Your task to perform on an android device: Search for macbook pro on costco.com, select the first entry, and add it to the cart. Image 0: 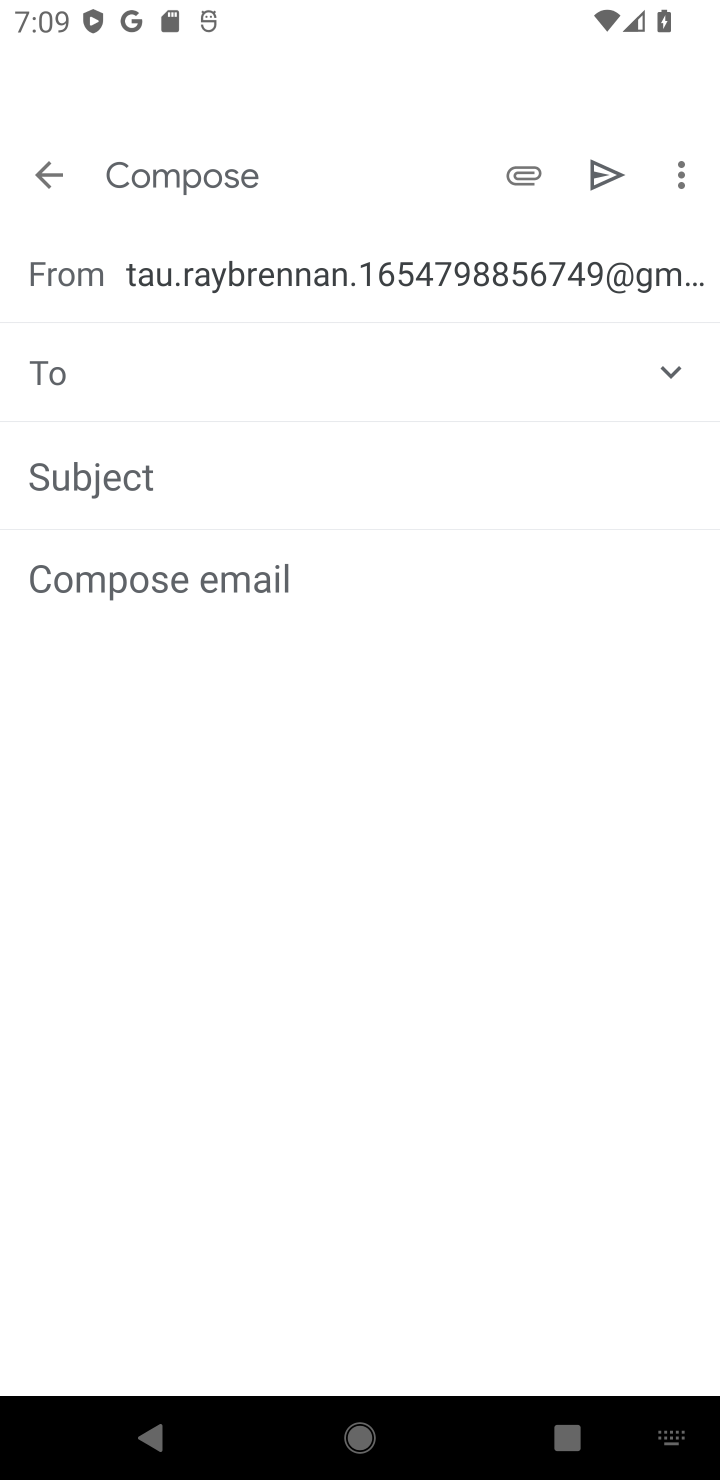
Step 0: press home button
Your task to perform on an android device: Search for macbook pro on costco.com, select the first entry, and add it to the cart. Image 1: 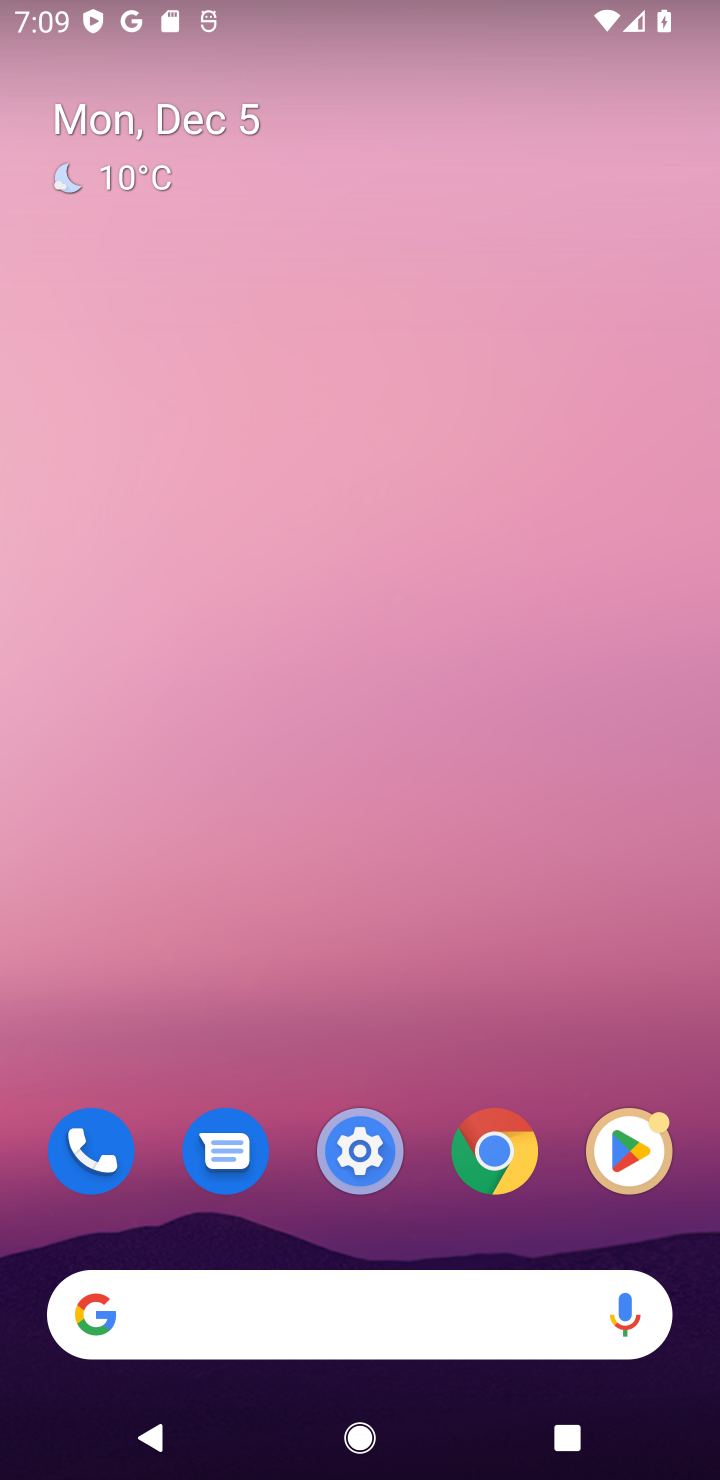
Step 1: click (382, 1333)
Your task to perform on an android device: Search for macbook pro on costco.com, select the first entry, and add it to the cart. Image 2: 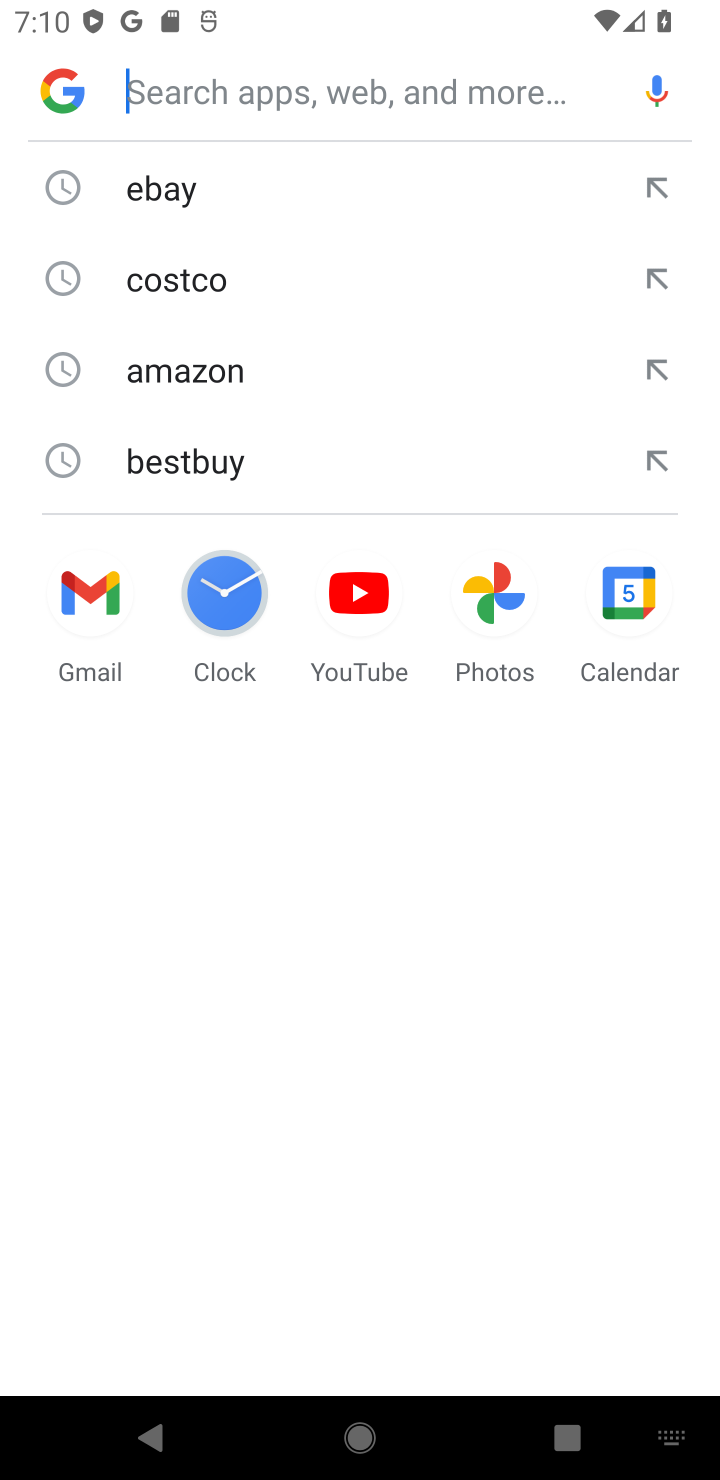
Step 2: click (375, 294)
Your task to perform on an android device: Search for macbook pro on costco.com, select the first entry, and add it to the cart. Image 3: 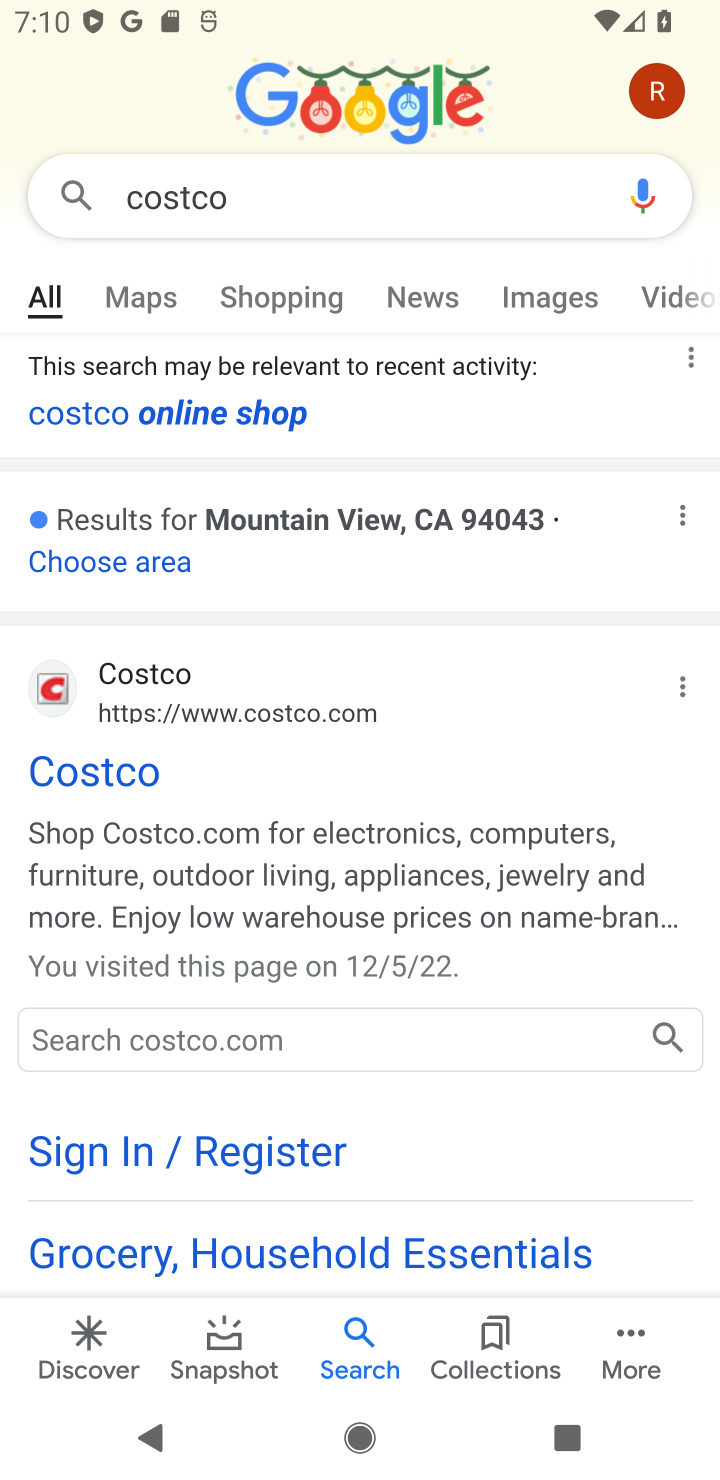
Step 3: click (106, 748)
Your task to perform on an android device: Search for macbook pro on costco.com, select the first entry, and add it to the cart. Image 4: 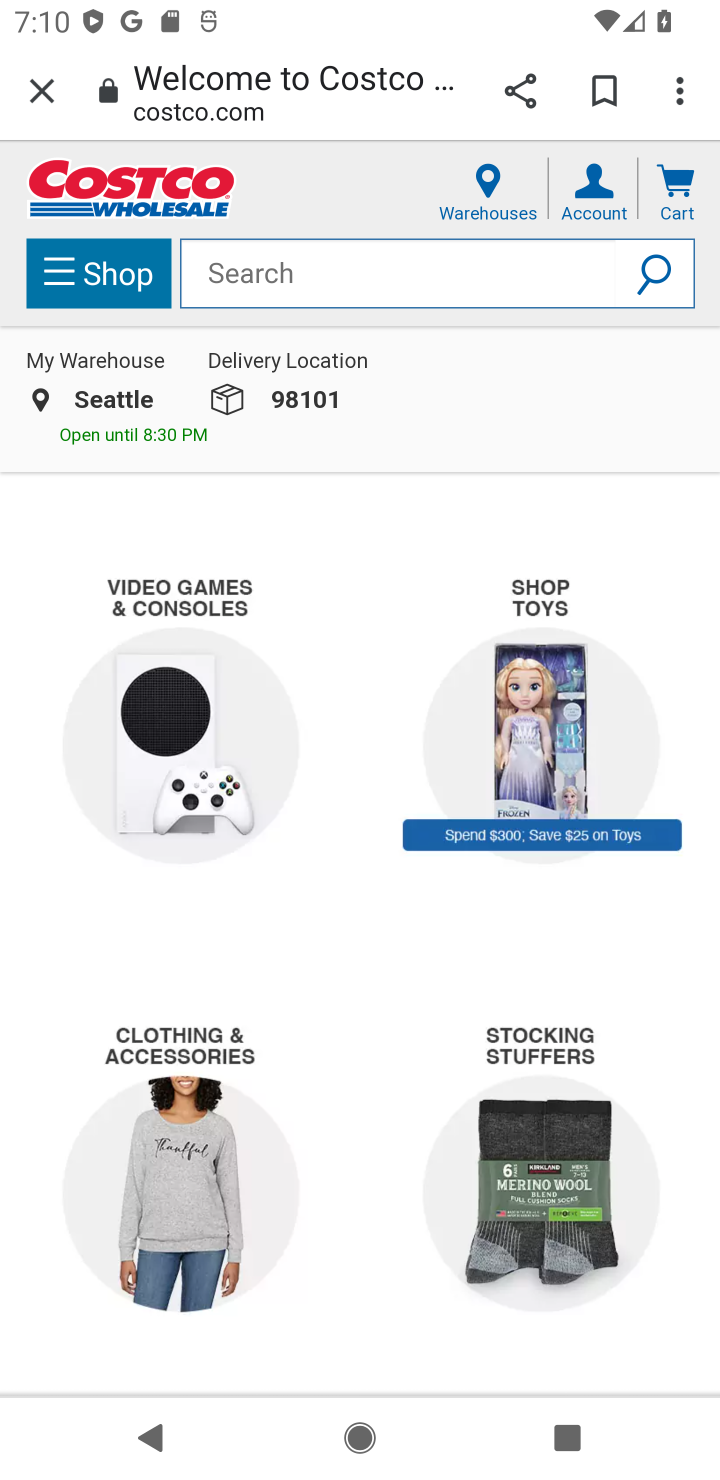
Step 4: click (273, 289)
Your task to perform on an android device: Search for macbook pro on costco.com, select the first entry, and add it to the cart. Image 5: 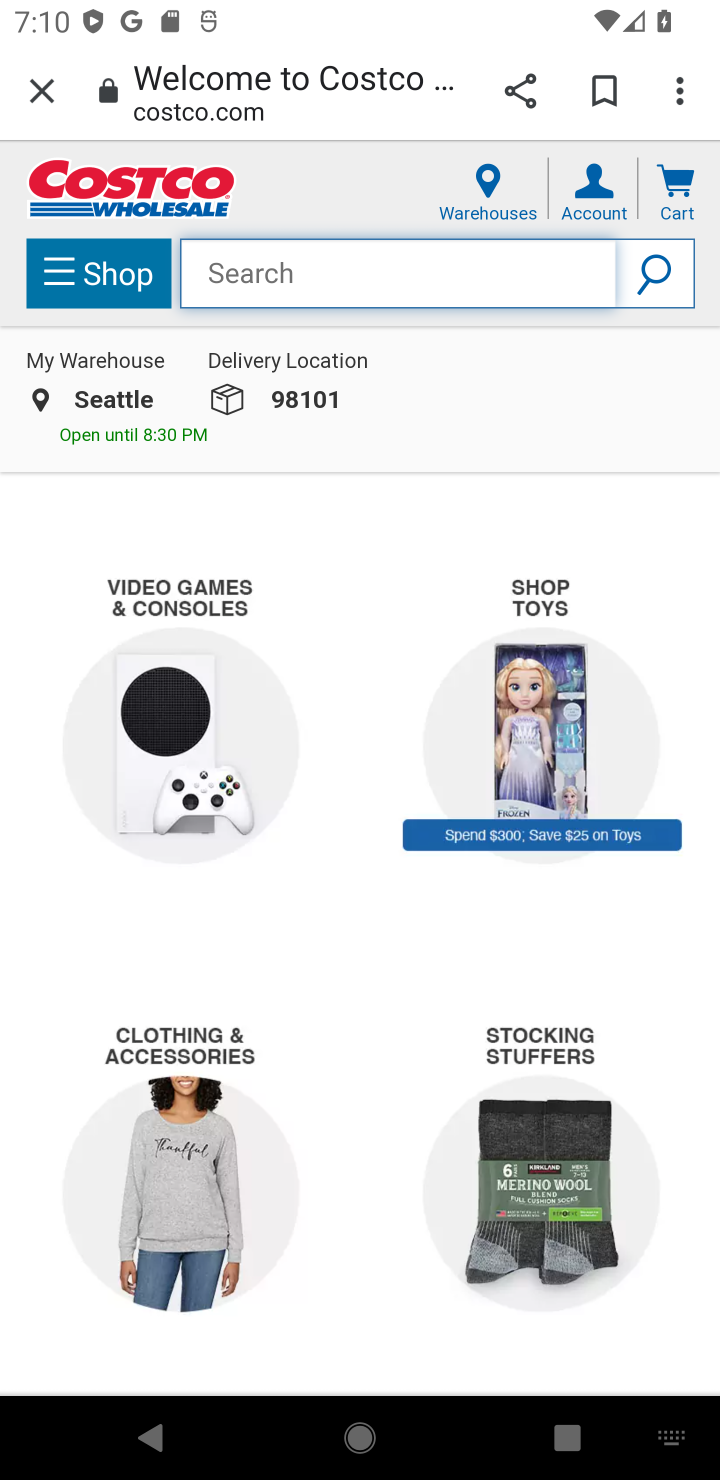
Step 5: type "macbook pro"
Your task to perform on an android device: Search for macbook pro on costco.com, select the first entry, and add it to the cart. Image 6: 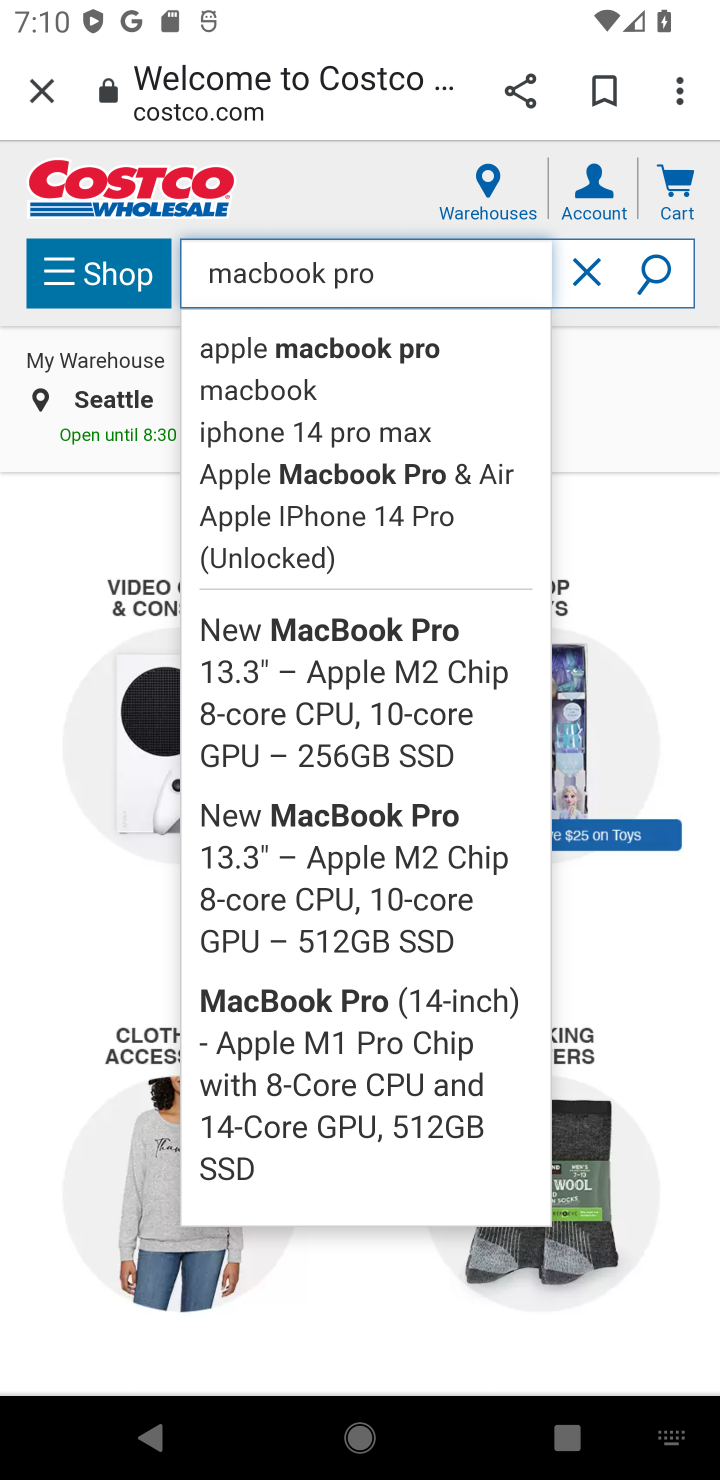
Step 6: click (410, 330)
Your task to perform on an android device: Search for macbook pro on costco.com, select the first entry, and add it to the cart. Image 7: 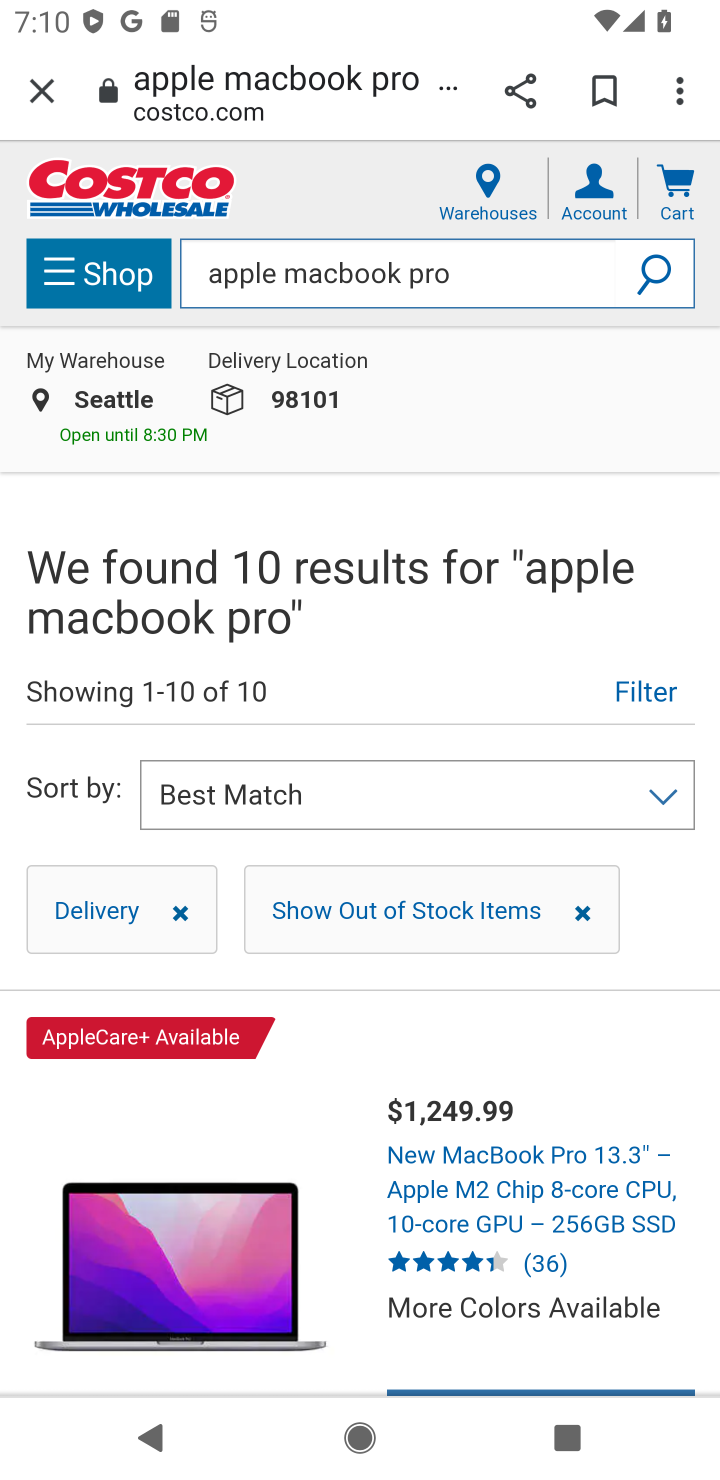
Step 7: click (417, 1167)
Your task to perform on an android device: Search for macbook pro on costco.com, select the first entry, and add it to the cart. Image 8: 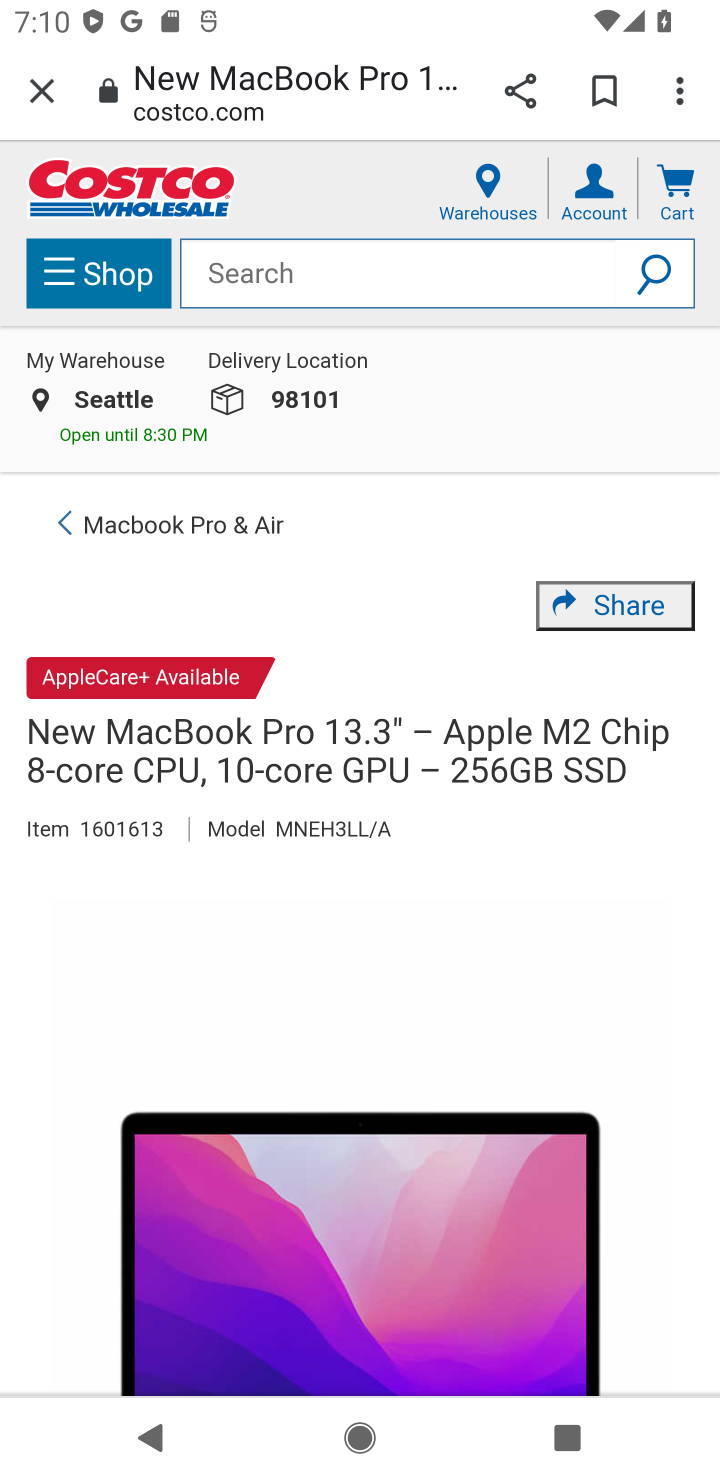
Step 8: drag from (317, 921) to (315, 605)
Your task to perform on an android device: Search for macbook pro on costco.com, select the first entry, and add it to the cart. Image 9: 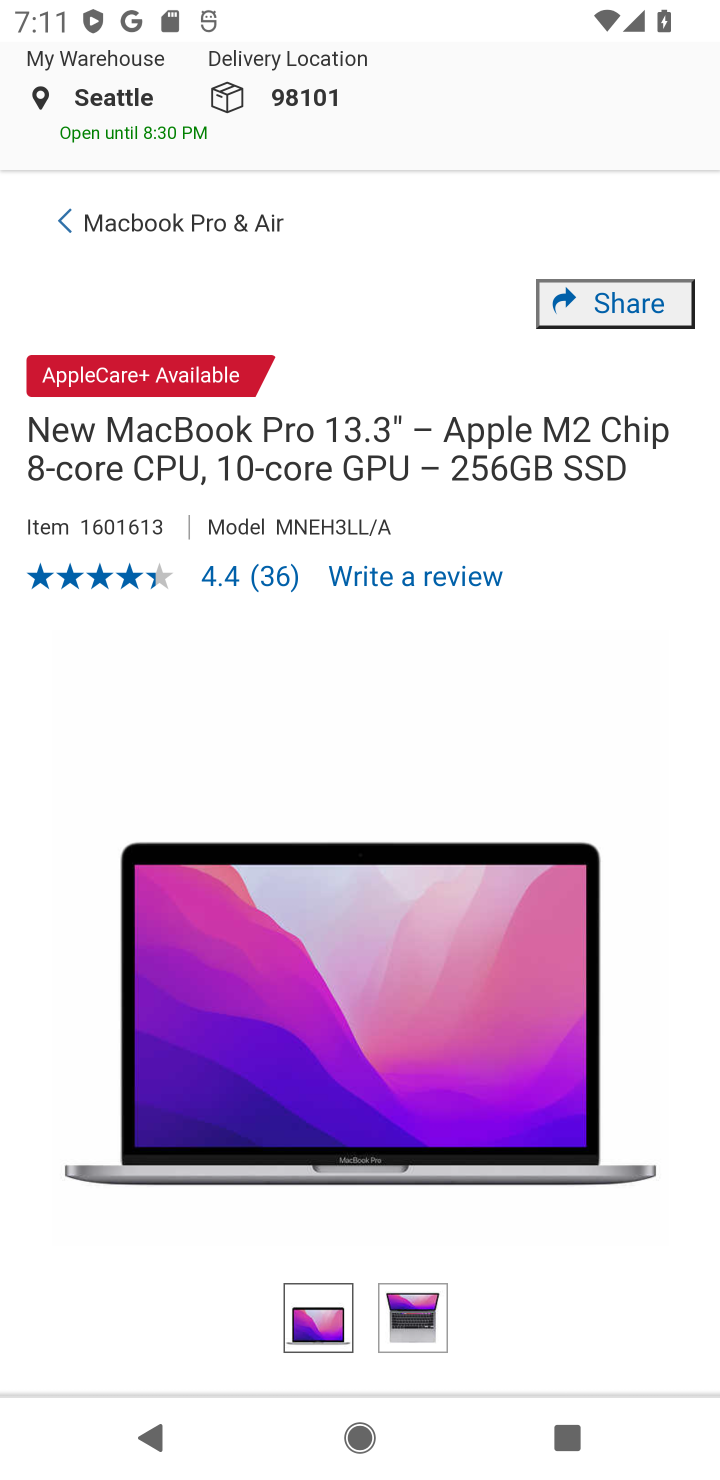
Step 9: drag from (605, 1265) to (390, 356)
Your task to perform on an android device: Search for macbook pro on costco.com, select the first entry, and add it to the cart. Image 10: 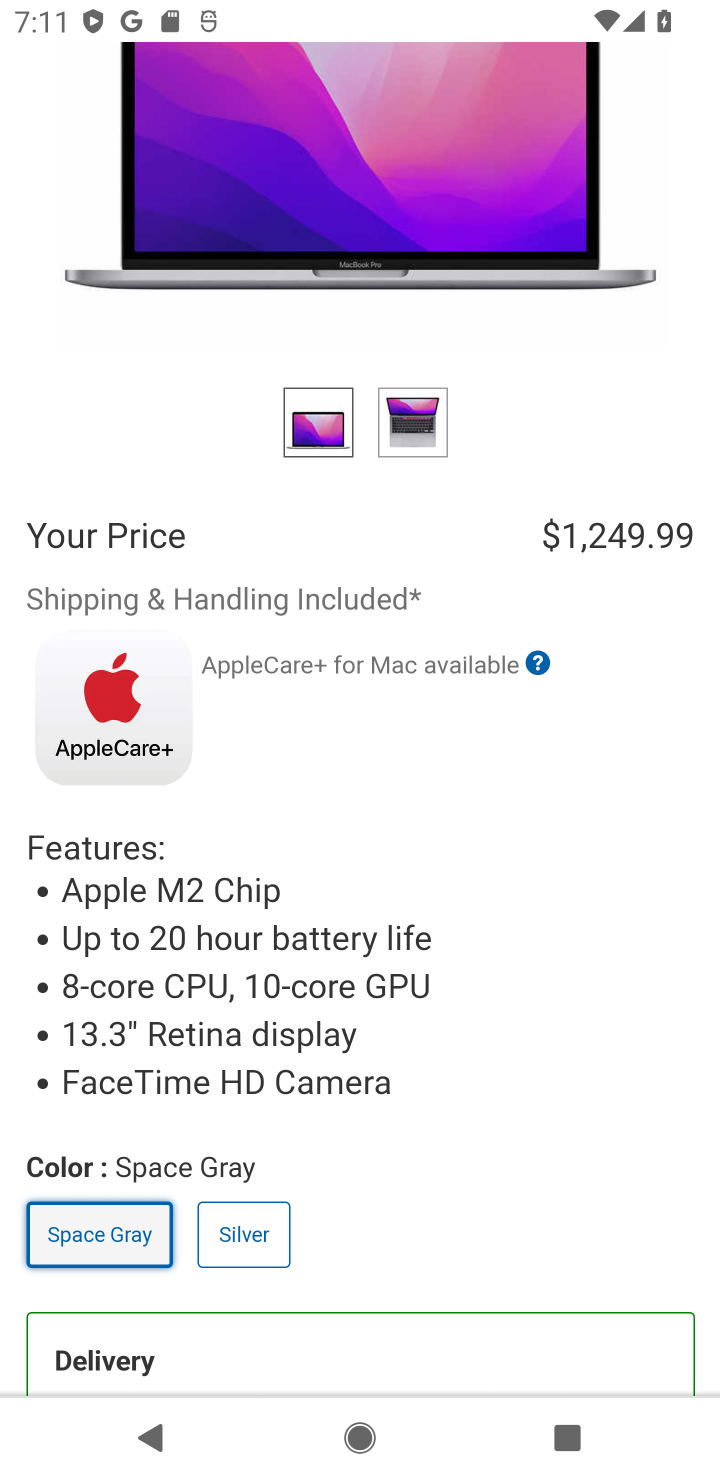
Step 10: drag from (566, 1255) to (483, 236)
Your task to perform on an android device: Search for macbook pro on costco.com, select the first entry, and add it to the cart. Image 11: 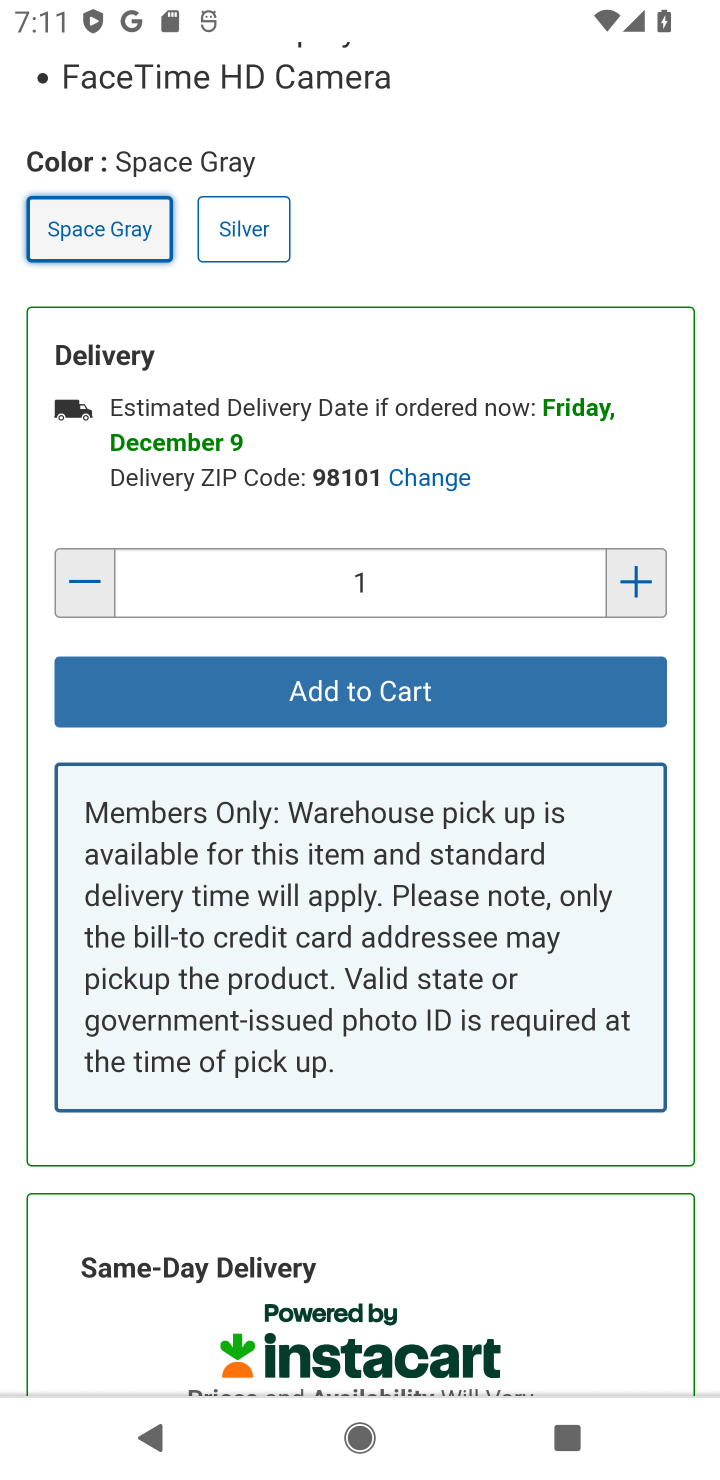
Step 11: click (452, 666)
Your task to perform on an android device: Search for macbook pro on costco.com, select the first entry, and add it to the cart. Image 12: 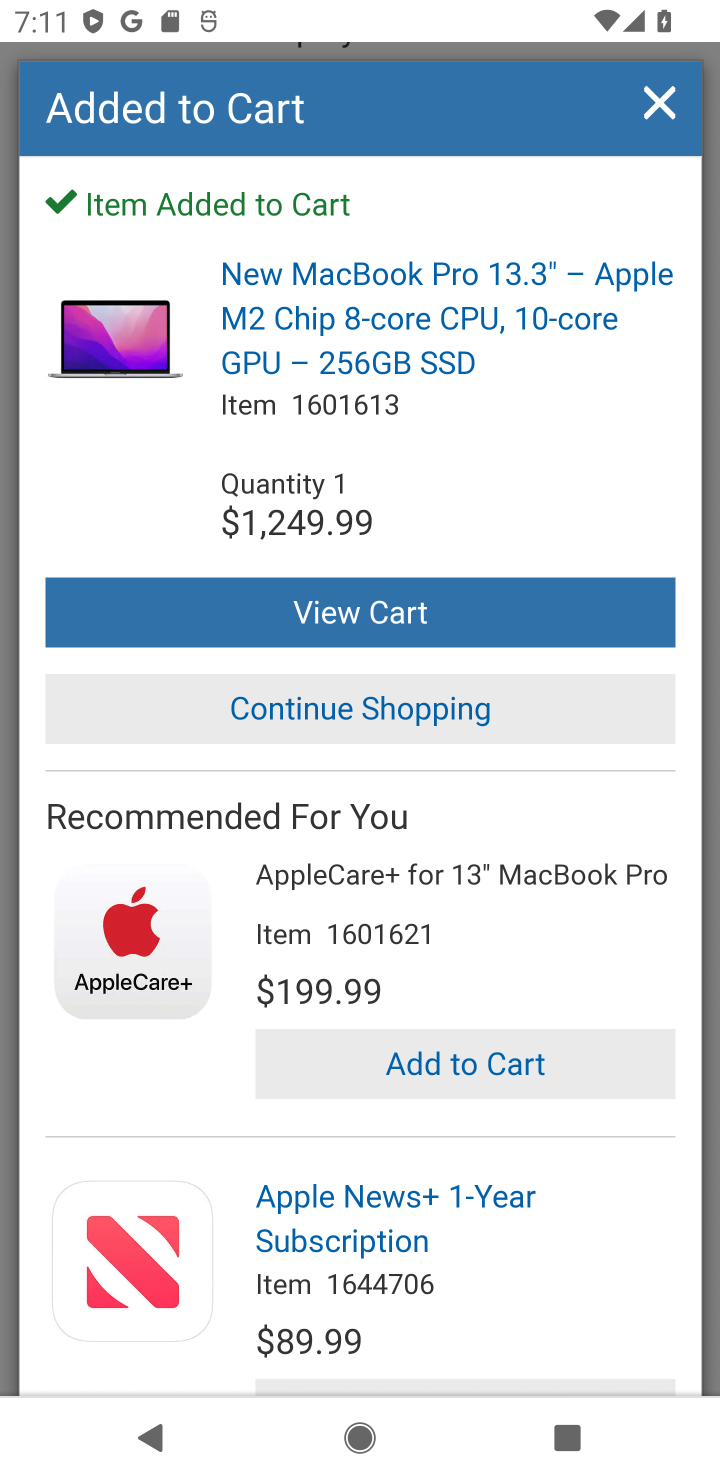
Step 12: task complete